Your task to perform on an android device: Go to internet settings Image 0: 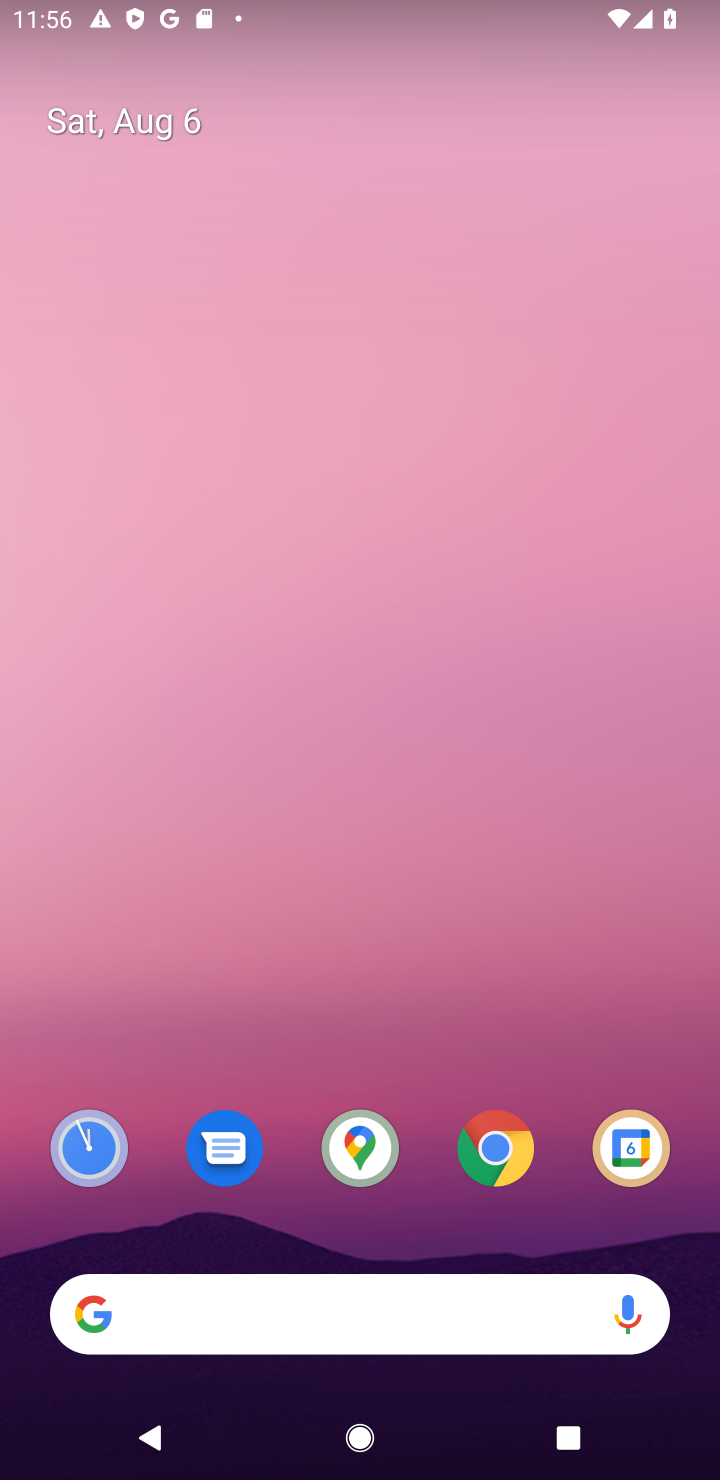
Step 0: drag from (399, 1027) to (336, 373)
Your task to perform on an android device: Go to internet settings Image 1: 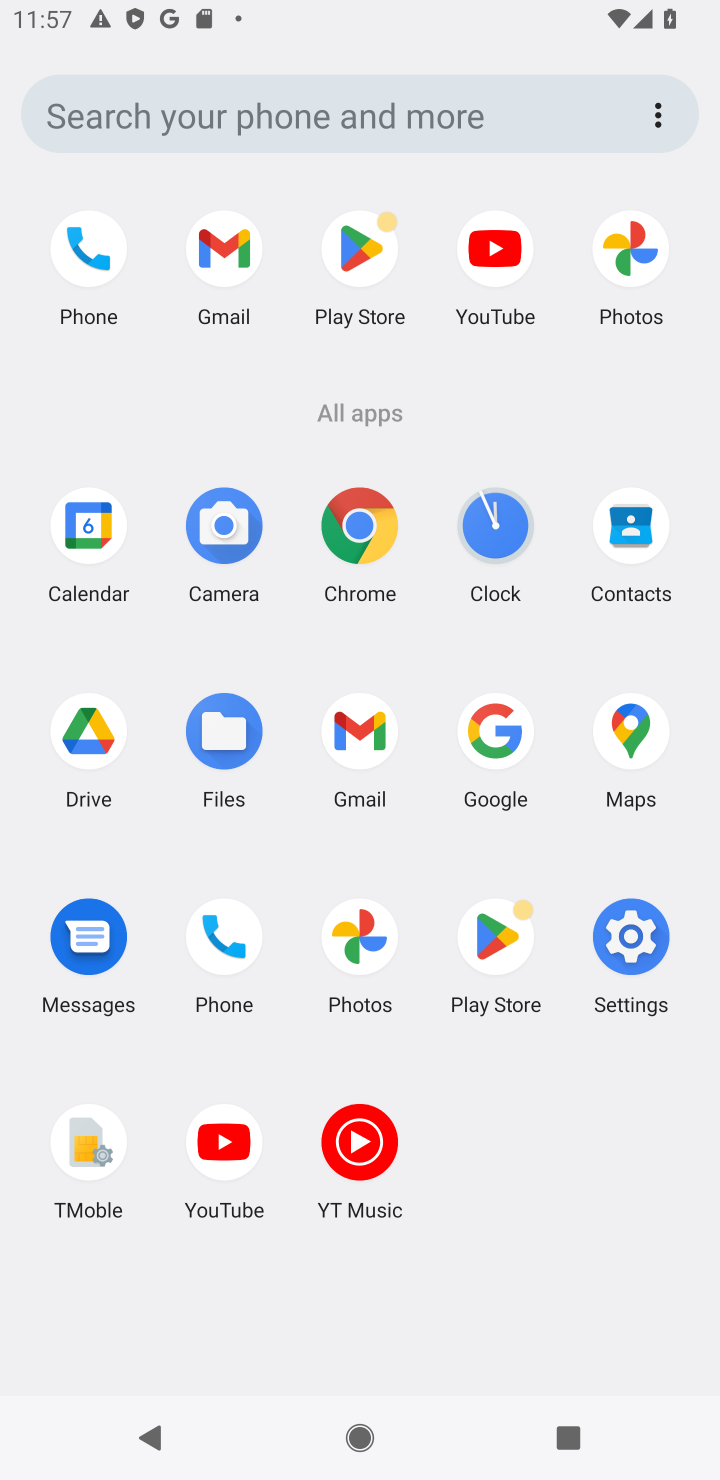
Step 1: click (631, 932)
Your task to perform on an android device: Go to internet settings Image 2: 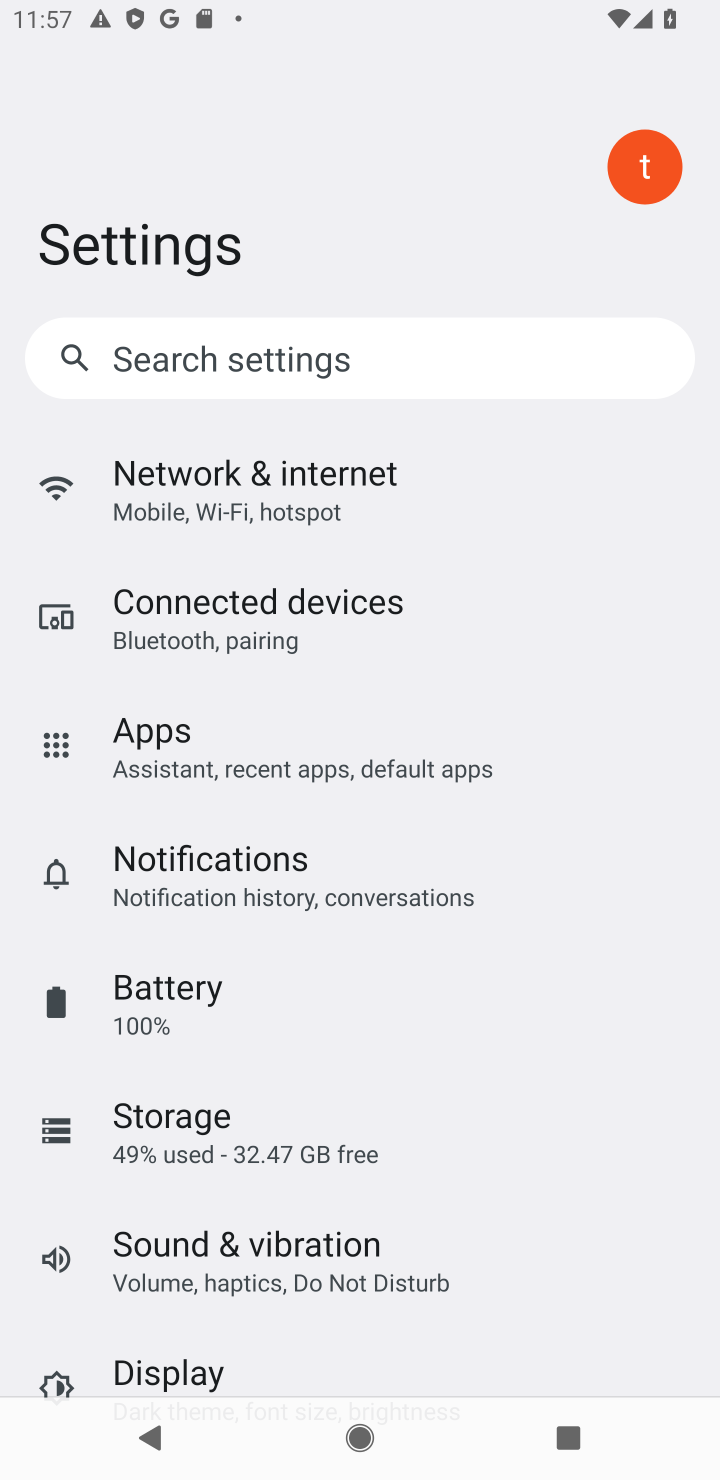
Step 2: click (255, 465)
Your task to perform on an android device: Go to internet settings Image 3: 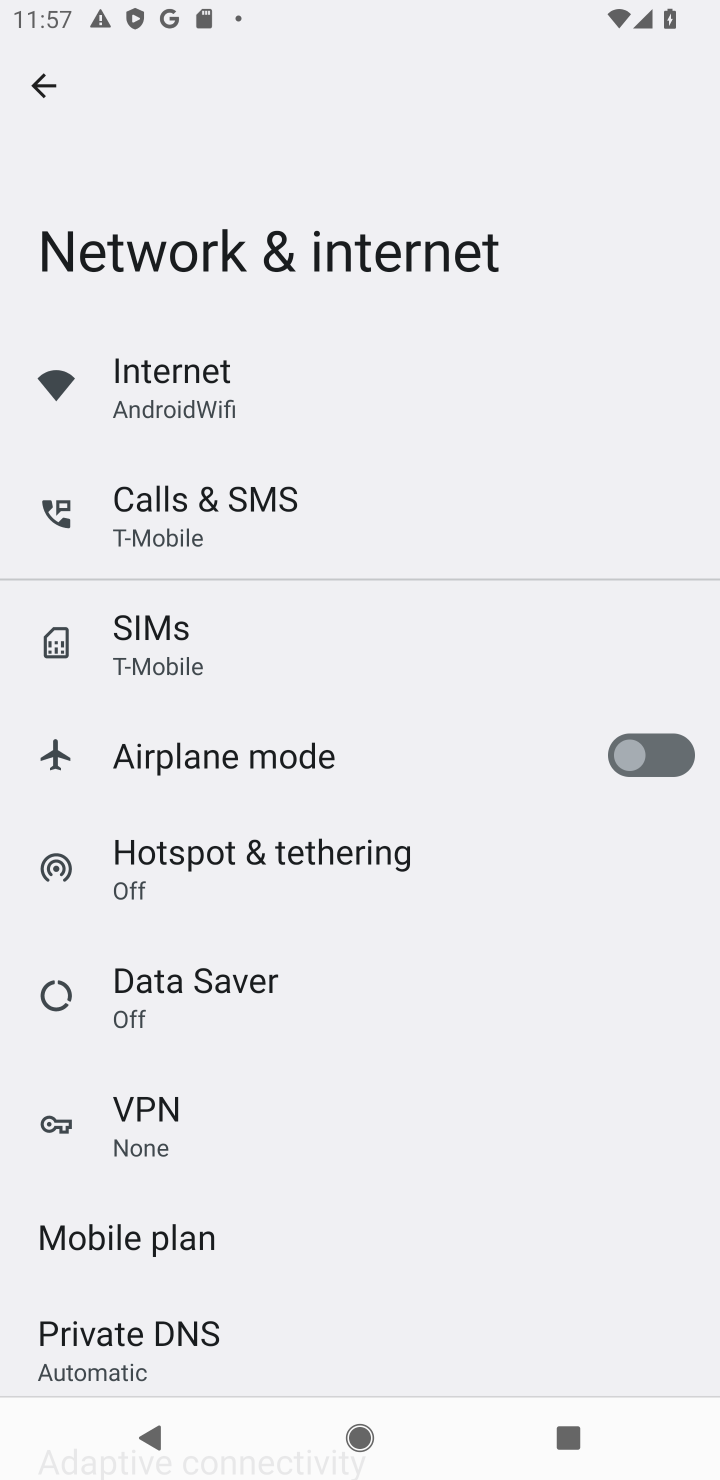
Step 3: click (185, 364)
Your task to perform on an android device: Go to internet settings Image 4: 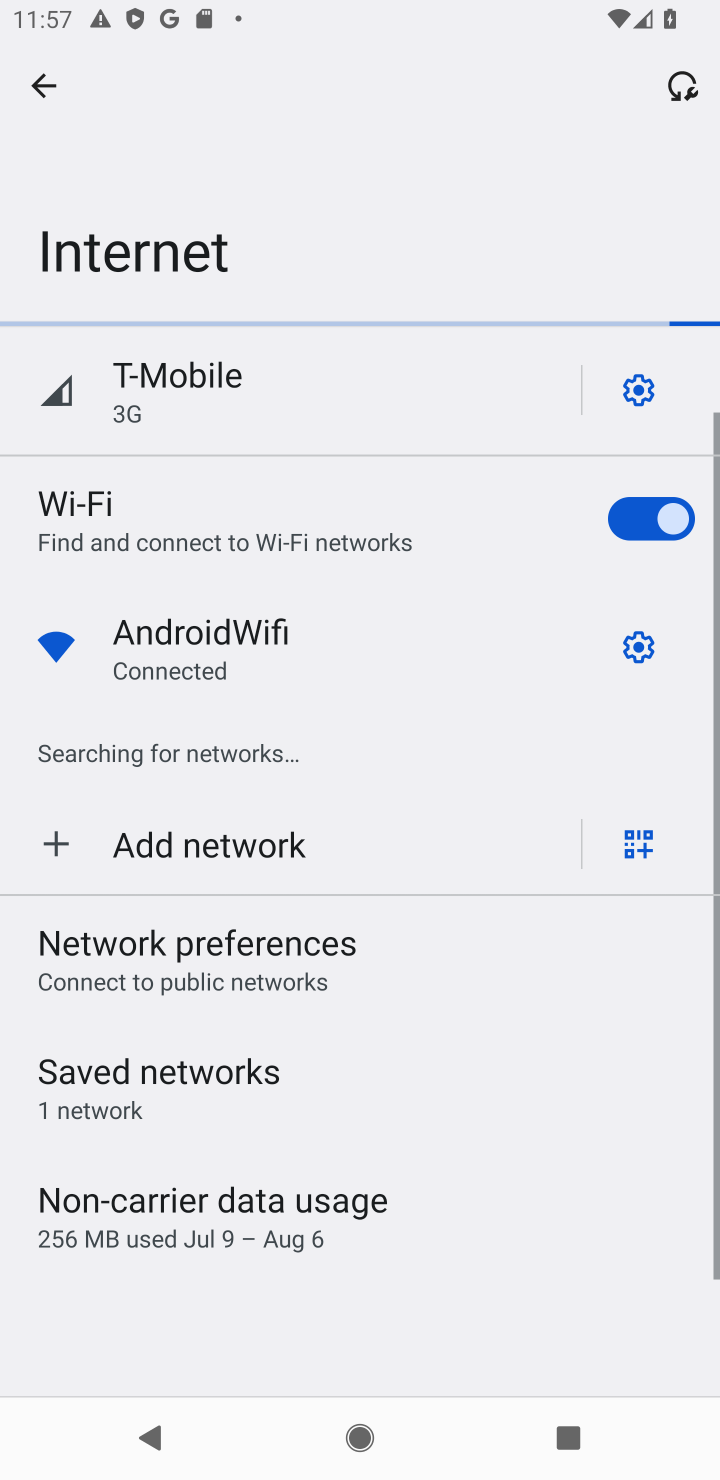
Step 4: task complete